Your task to perform on an android device: How much does a 2 bedroom apartment rent for in Boston? Image 0: 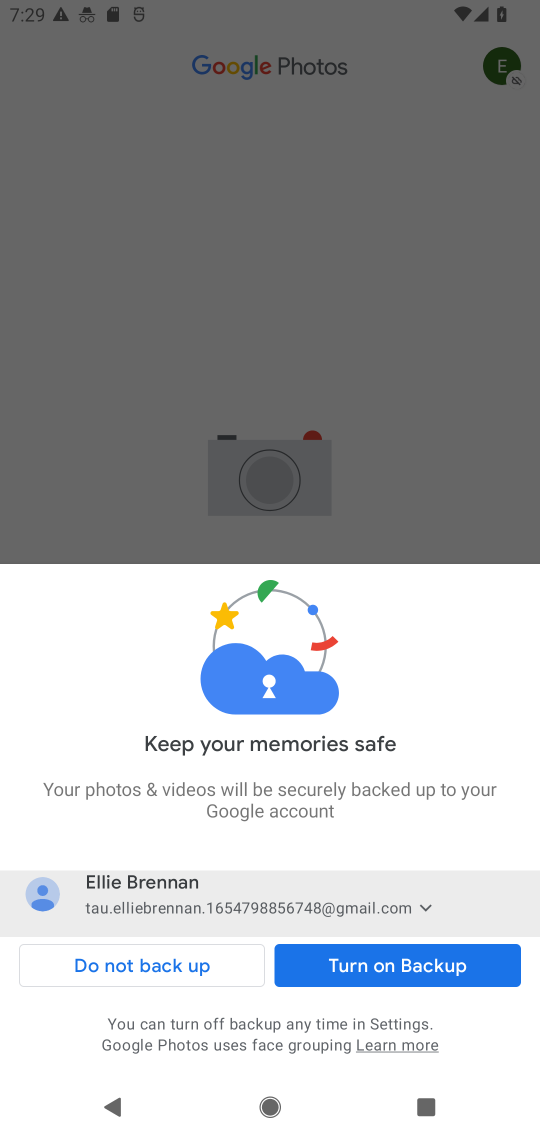
Step 0: press home button
Your task to perform on an android device: How much does a 2 bedroom apartment rent for in Boston? Image 1: 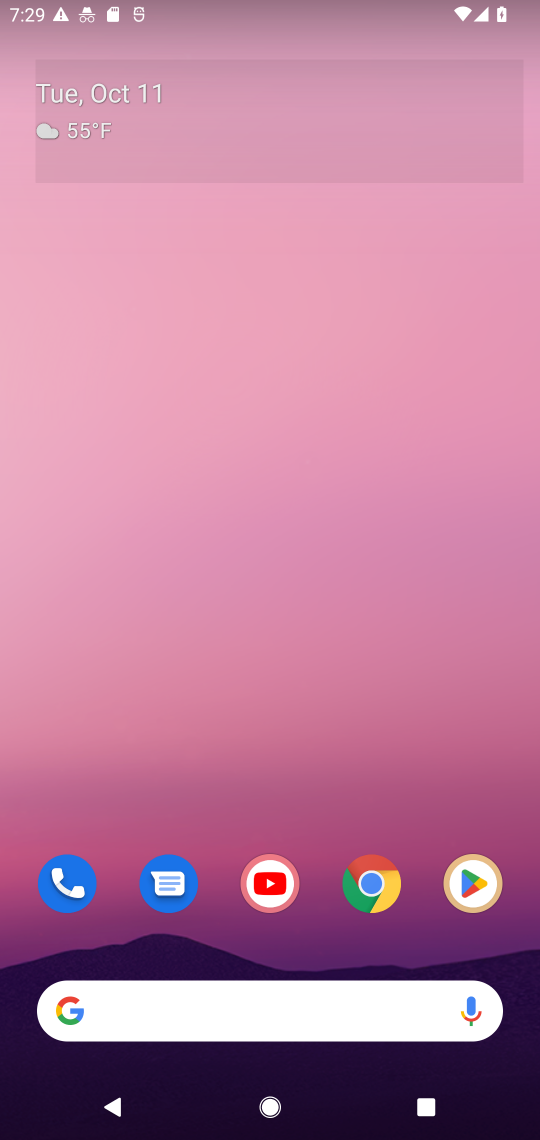
Step 1: drag from (322, 926) to (411, 52)
Your task to perform on an android device: How much does a 2 bedroom apartment rent for in Boston? Image 2: 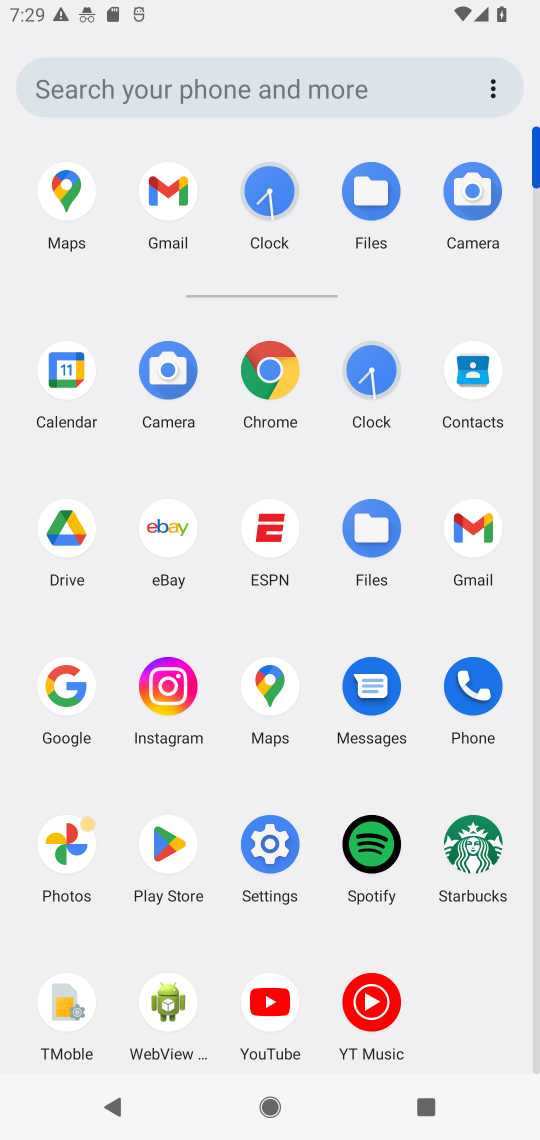
Step 2: click (273, 375)
Your task to perform on an android device: How much does a 2 bedroom apartment rent for in Boston? Image 3: 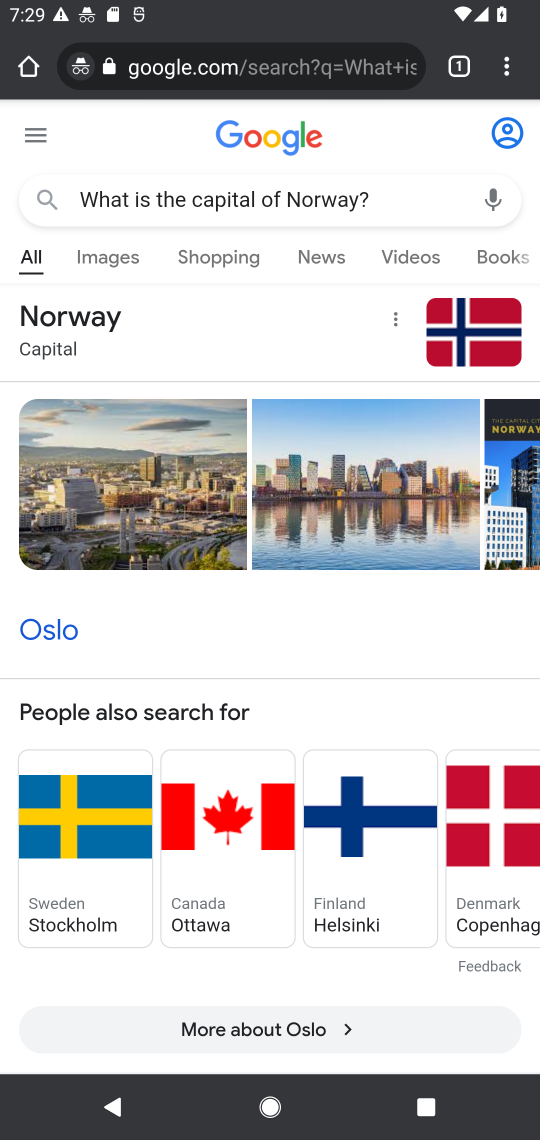
Step 3: click (267, 68)
Your task to perform on an android device: How much does a 2 bedroom apartment rent for in Boston? Image 4: 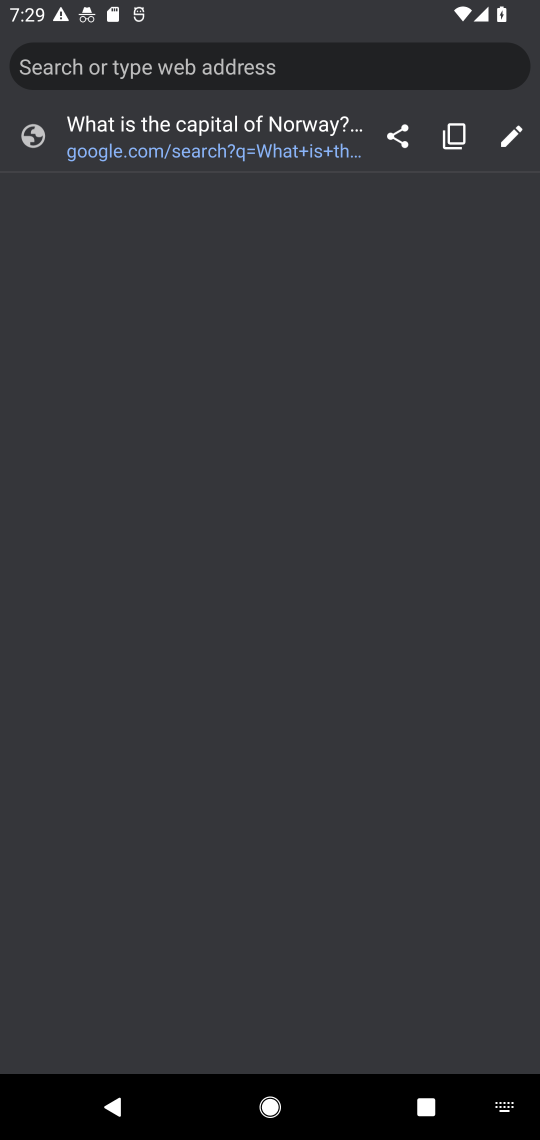
Step 4: type "how much does a 2 bedroom apartment rent for in"
Your task to perform on an android device: How much does a 2 bedroom apartment rent for in Boston? Image 5: 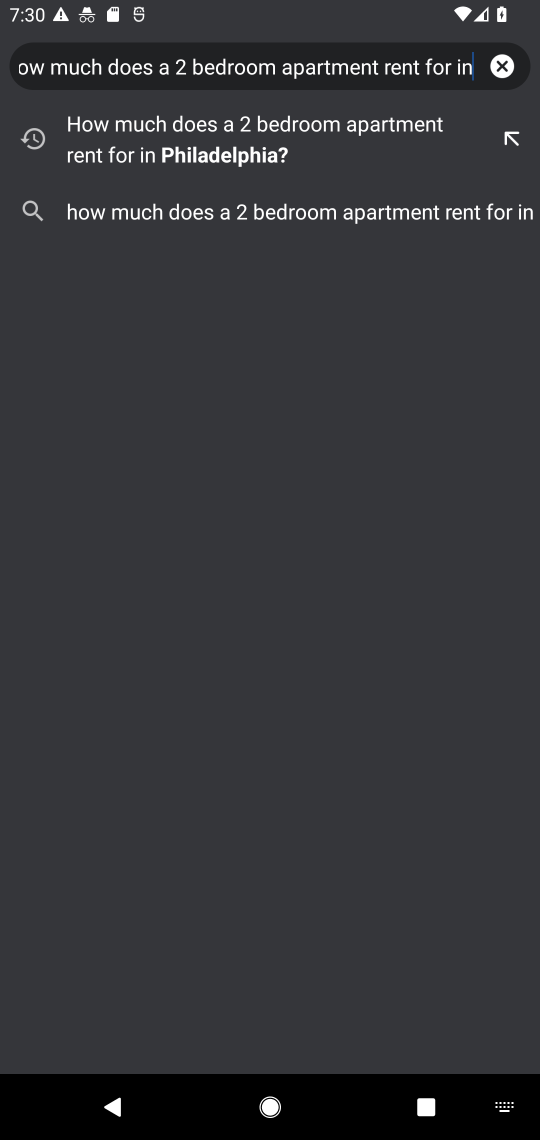
Step 5: type "Boston?"
Your task to perform on an android device: How much does a 2 bedroom apartment rent for in Boston? Image 6: 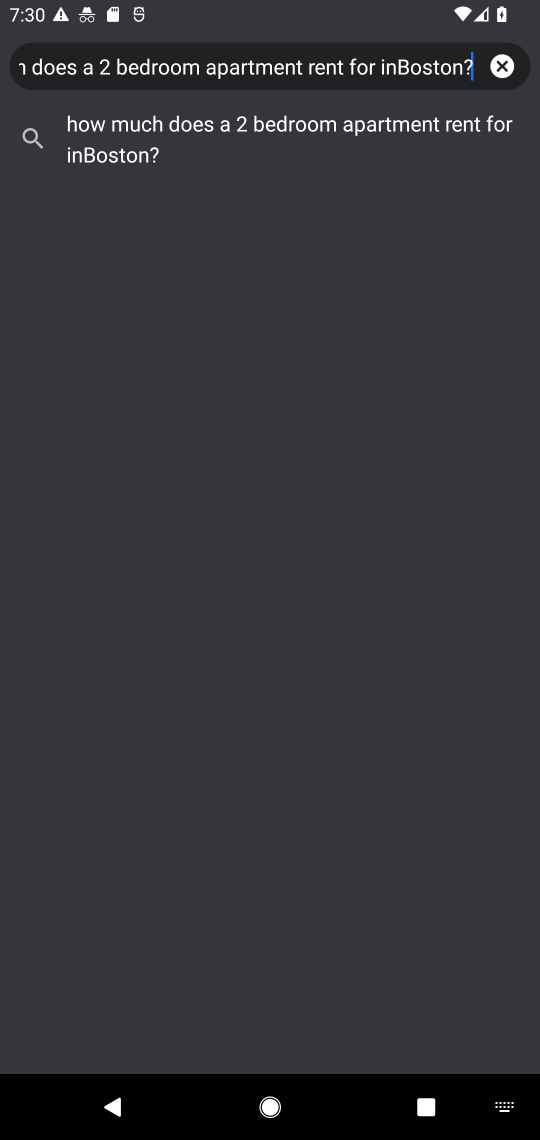
Step 6: press enter
Your task to perform on an android device: How much does a 2 bedroom apartment rent for in Boston? Image 7: 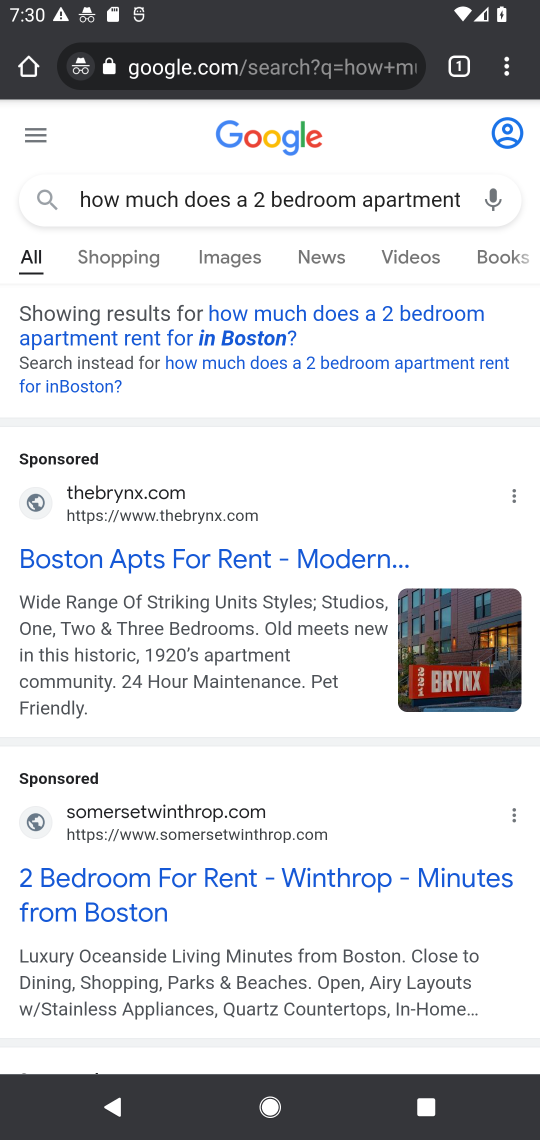
Step 7: task complete